Your task to perform on an android device: snooze an email in the gmail app Image 0: 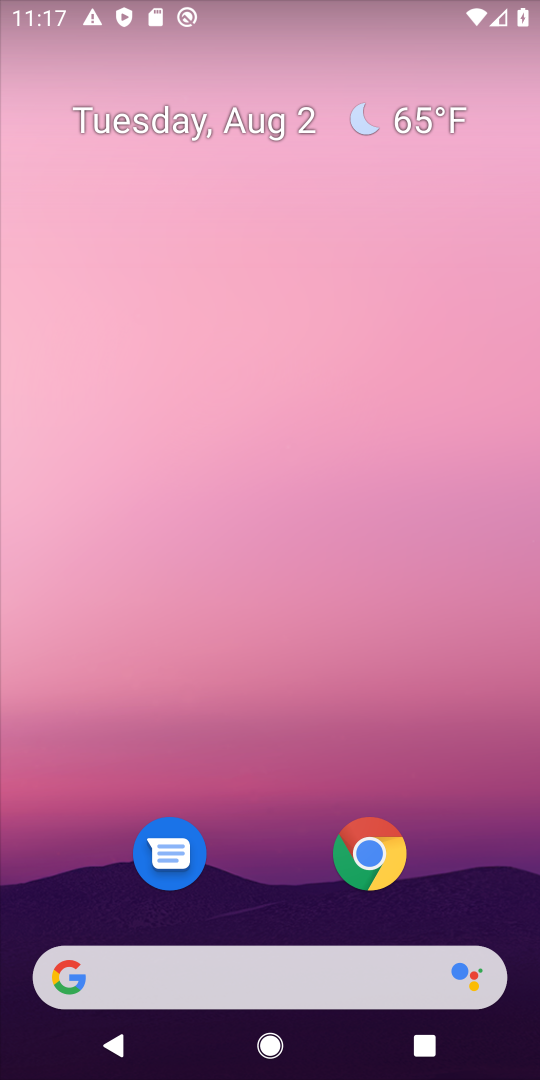
Step 0: press home button
Your task to perform on an android device: snooze an email in the gmail app Image 1: 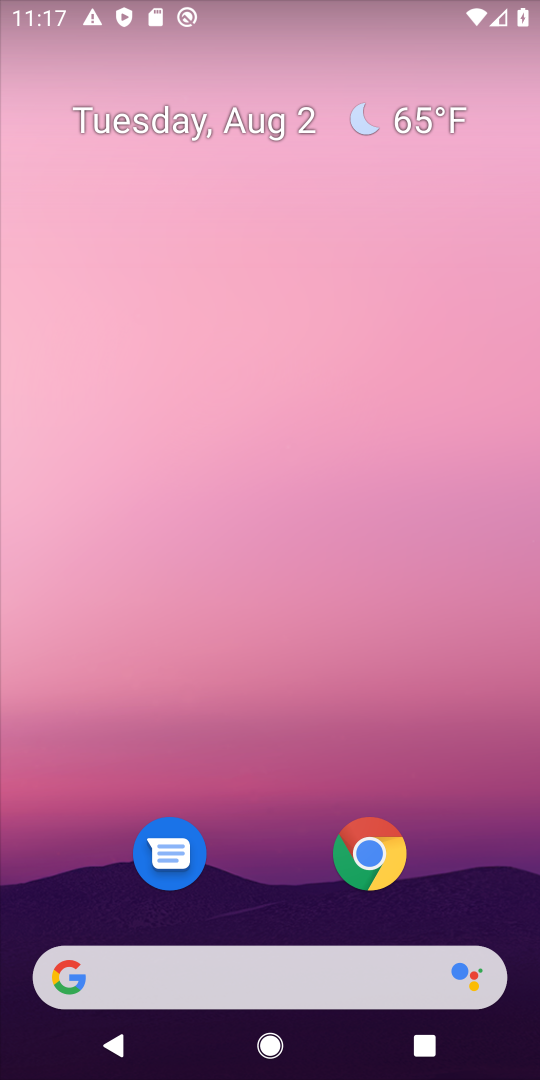
Step 1: drag from (304, 789) to (528, 194)
Your task to perform on an android device: snooze an email in the gmail app Image 2: 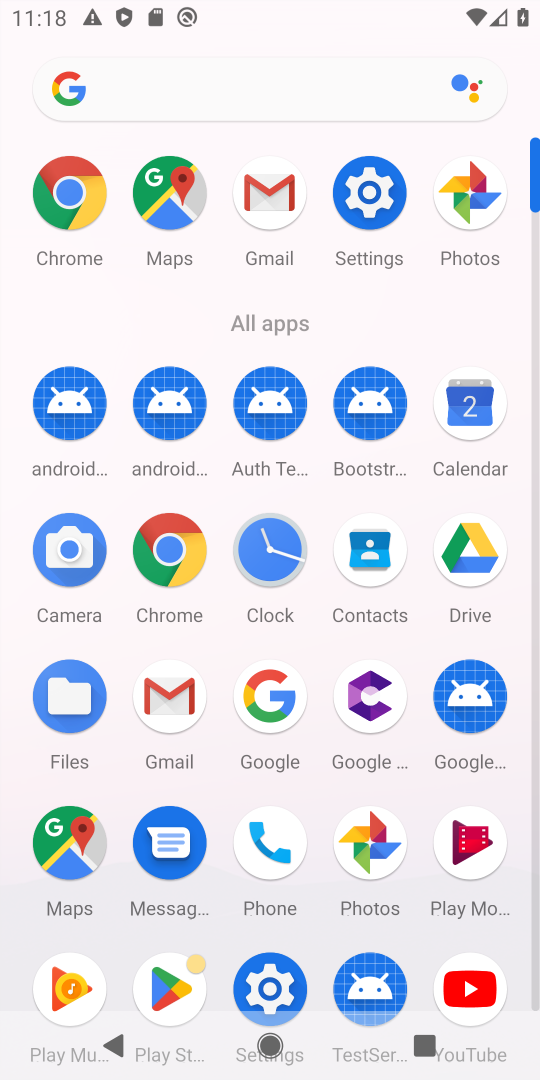
Step 2: click (249, 175)
Your task to perform on an android device: snooze an email in the gmail app Image 3: 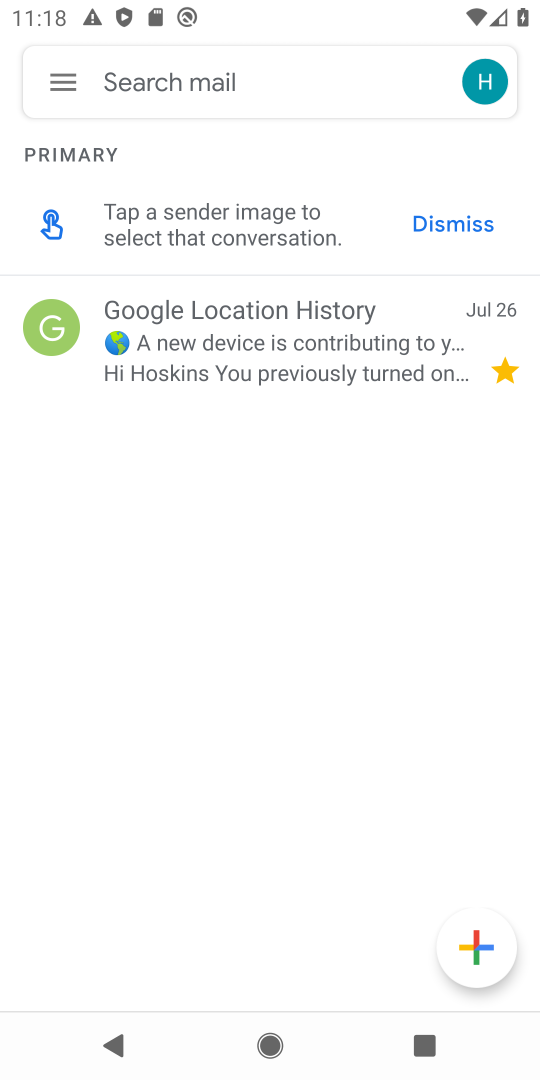
Step 3: click (71, 101)
Your task to perform on an android device: snooze an email in the gmail app Image 4: 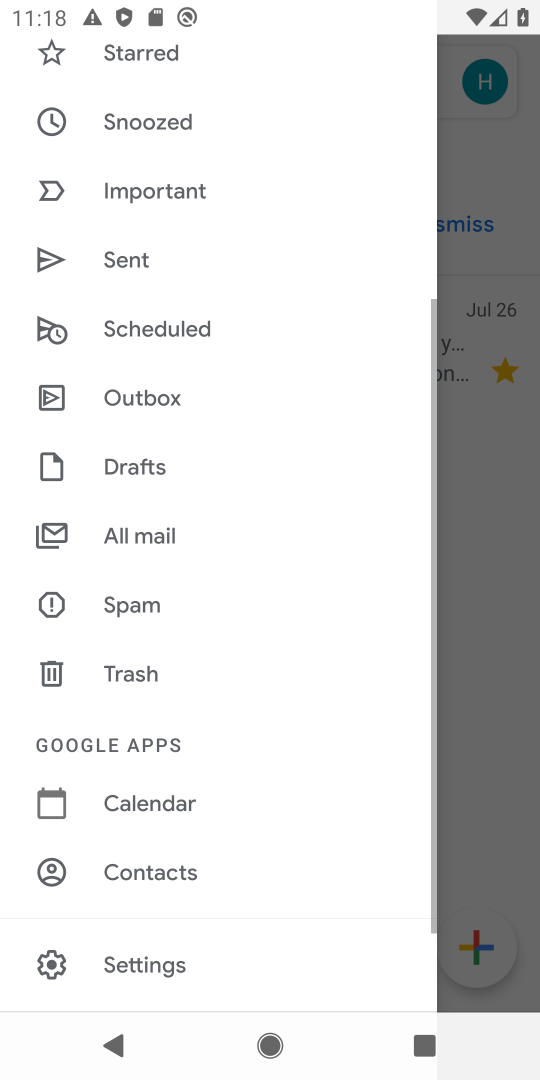
Step 4: drag from (189, 287) to (207, 1067)
Your task to perform on an android device: snooze an email in the gmail app Image 5: 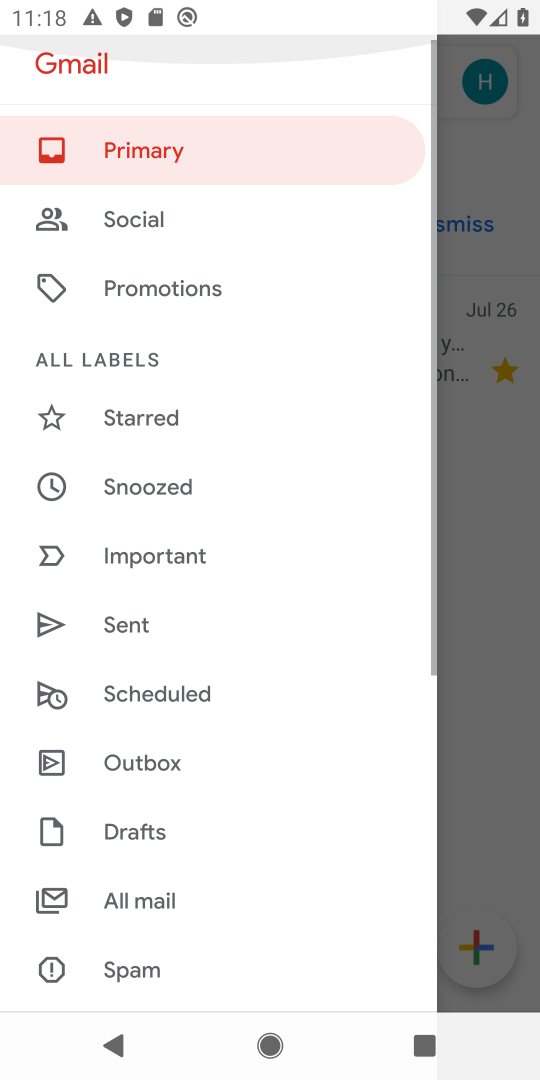
Step 5: click (494, 690)
Your task to perform on an android device: snooze an email in the gmail app Image 6: 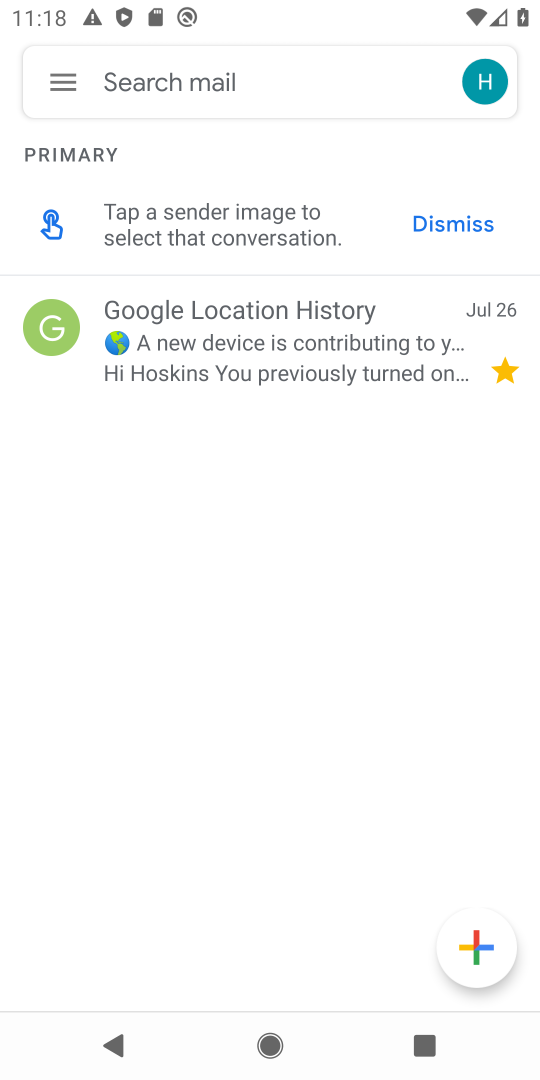
Step 6: click (323, 359)
Your task to perform on an android device: snooze an email in the gmail app Image 7: 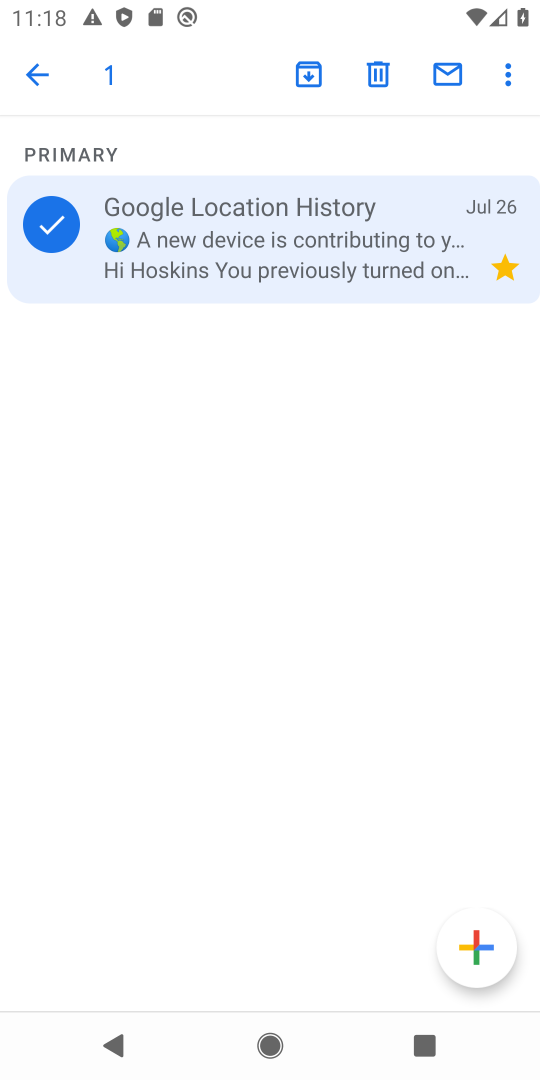
Step 7: click (498, 77)
Your task to perform on an android device: snooze an email in the gmail app Image 8: 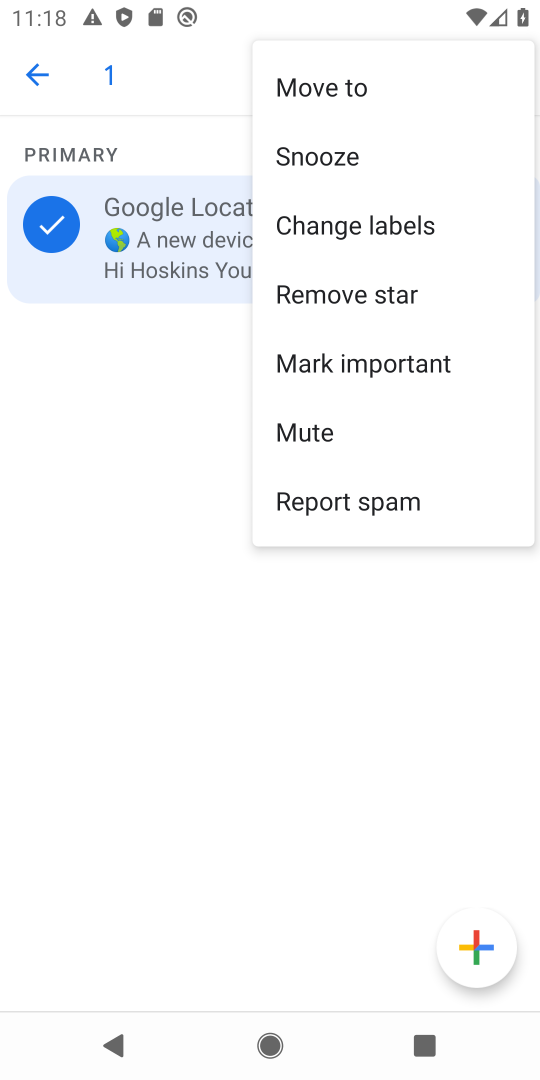
Step 8: click (407, 152)
Your task to perform on an android device: snooze an email in the gmail app Image 9: 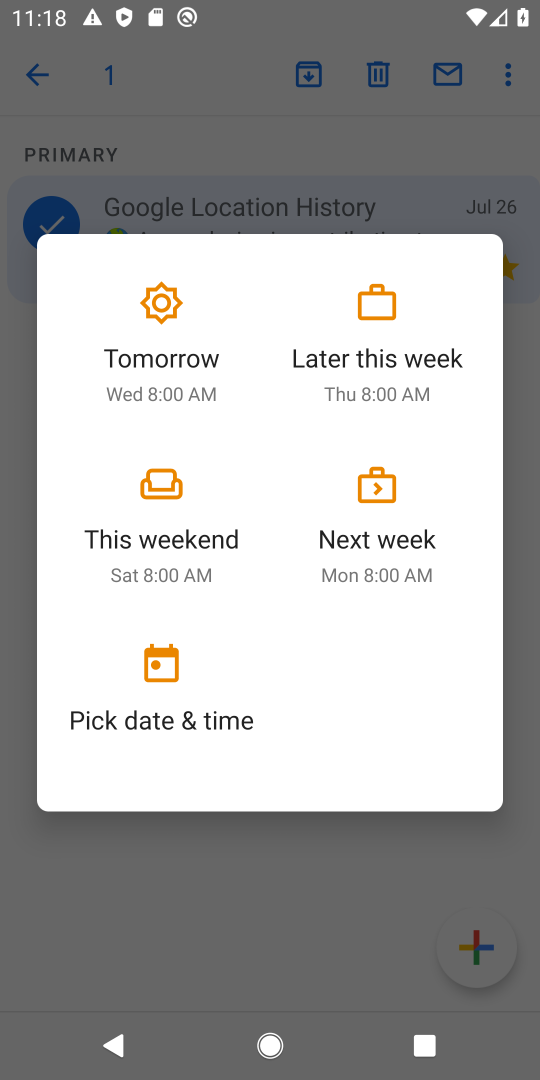
Step 9: click (232, 394)
Your task to perform on an android device: snooze an email in the gmail app Image 10: 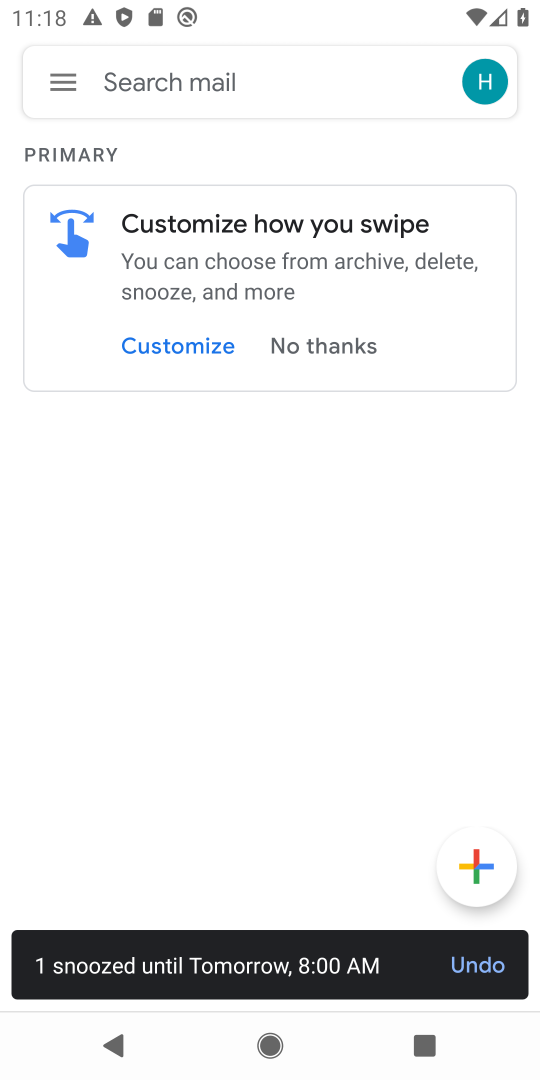
Step 10: task complete